Your task to perform on an android device: Open Google Chrome and open the bookmarks view Image 0: 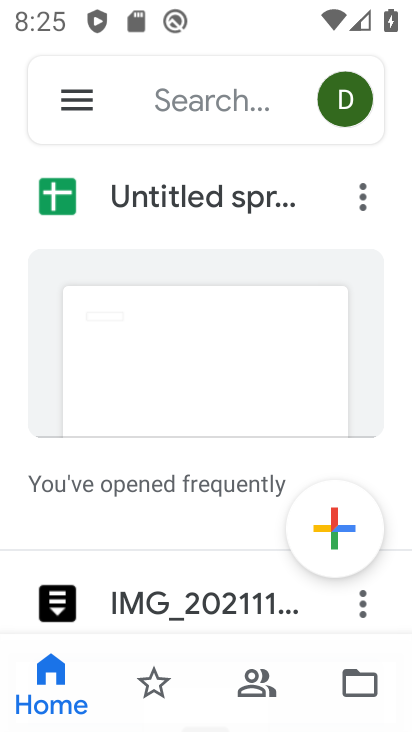
Step 0: press home button
Your task to perform on an android device: Open Google Chrome and open the bookmarks view Image 1: 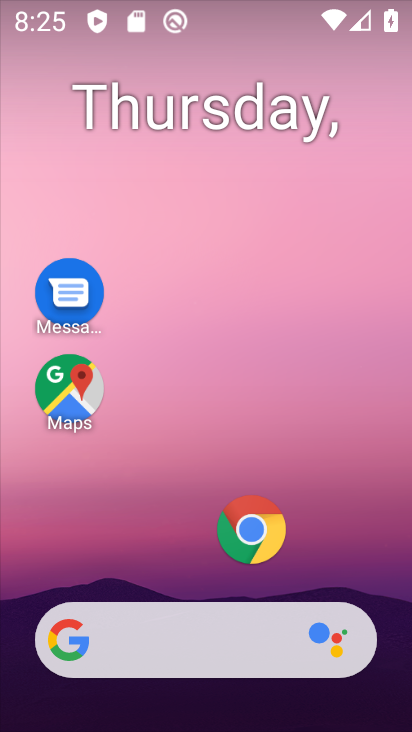
Step 1: click (241, 535)
Your task to perform on an android device: Open Google Chrome and open the bookmarks view Image 2: 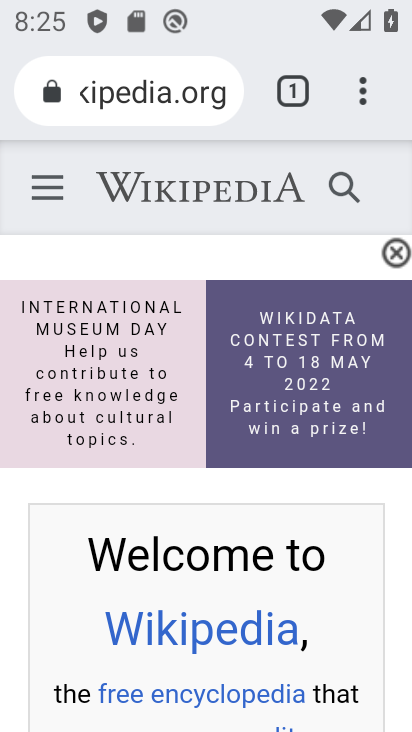
Step 2: click (373, 87)
Your task to perform on an android device: Open Google Chrome and open the bookmarks view Image 3: 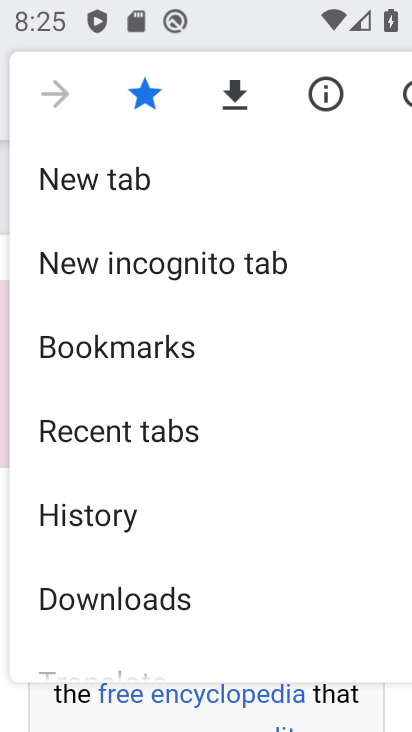
Step 3: click (167, 337)
Your task to perform on an android device: Open Google Chrome and open the bookmarks view Image 4: 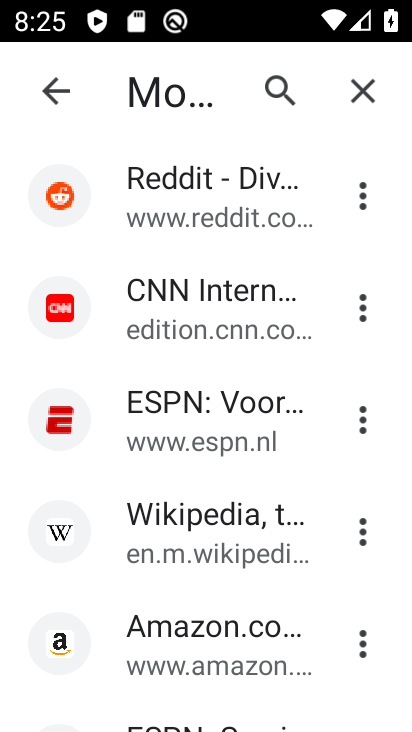
Step 4: task complete